Your task to perform on an android device: toggle translation in the chrome app Image 0: 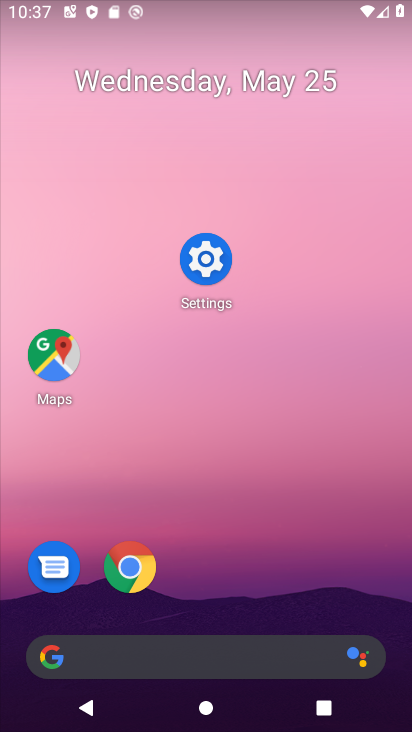
Step 0: click (115, 558)
Your task to perform on an android device: toggle translation in the chrome app Image 1: 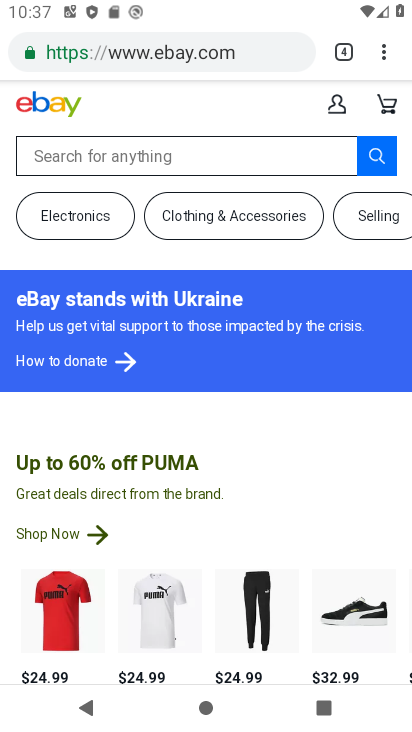
Step 1: click (400, 46)
Your task to perform on an android device: toggle translation in the chrome app Image 2: 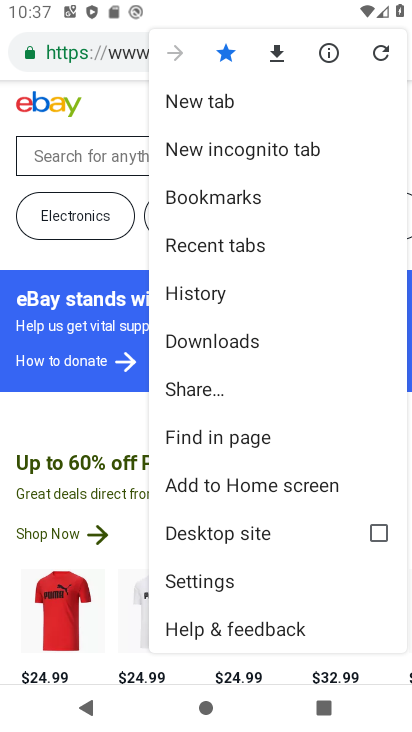
Step 2: click (207, 582)
Your task to perform on an android device: toggle translation in the chrome app Image 3: 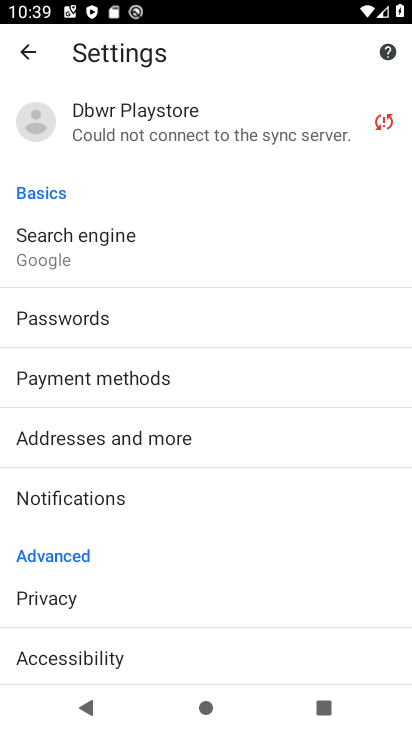
Step 3: task complete